Your task to perform on an android device: Check the news Image 0: 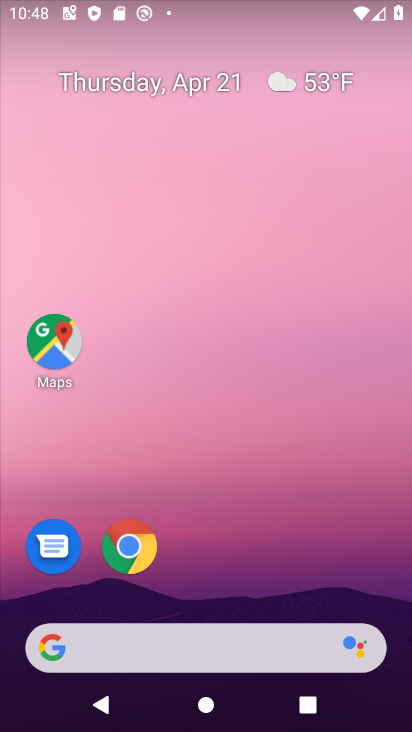
Step 0: drag from (251, 568) to (161, 158)
Your task to perform on an android device: Check the news Image 1: 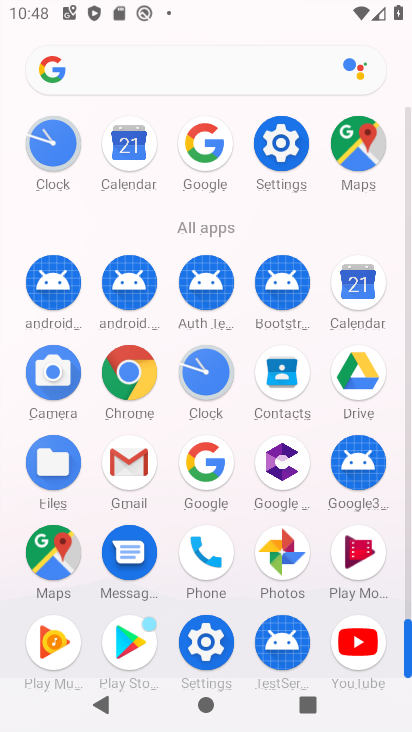
Step 1: click (198, 463)
Your task to perform on an android device: Check the news Image 2: 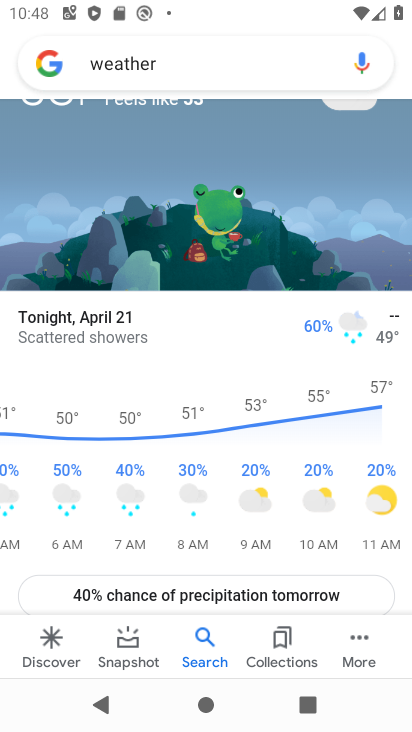
Step 2: click (156, 70)
Your task to perform on an android device: Check the news Image 3: 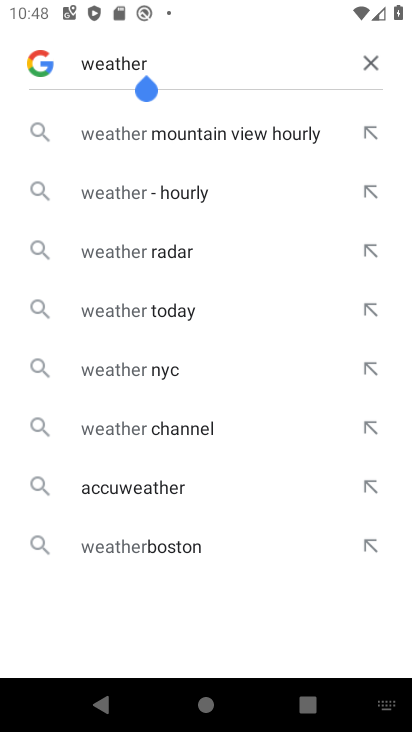
Step 3: click (380, 60)
Your task to perform on an android device: Check the news Image 4: 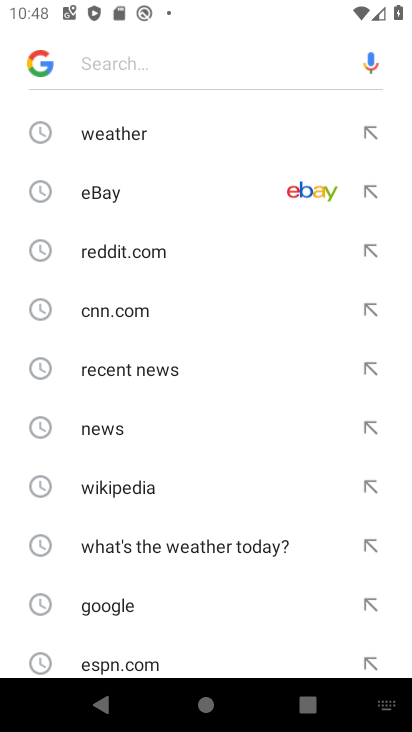
Step 4: click (98, 438)
Your task to perform on an android device: Check the news Image 5: 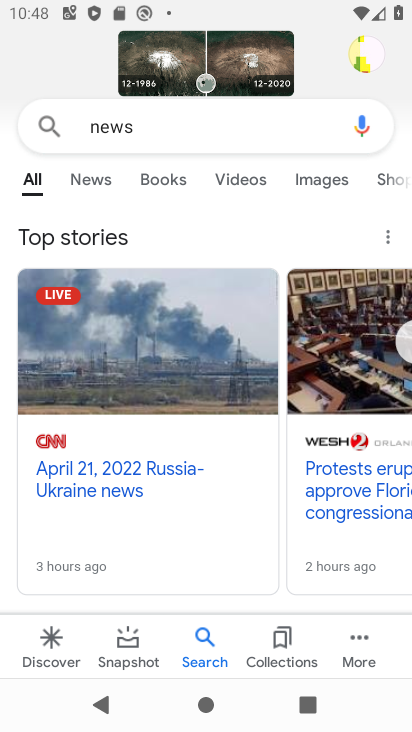
Step 5: task complete